Your task to perform on an android device: search for starred emails in the gmail app Image 0: 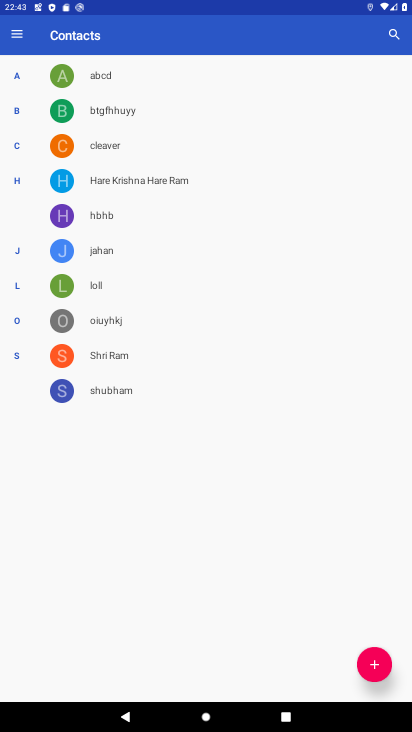
Step 0: press home button
Your task to perform on an android device: search for starred emails in the gmail app Image 1: 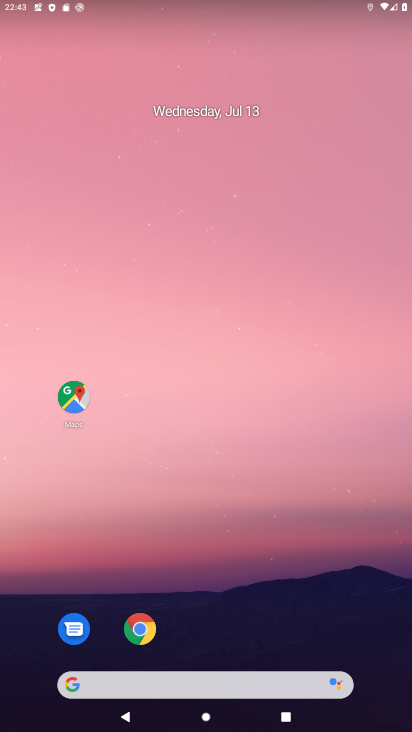
Step 1: drag from (210, 646) to (254, 27)
Your task to perform on an android device: search for starred emails in the gmail app Image 2: 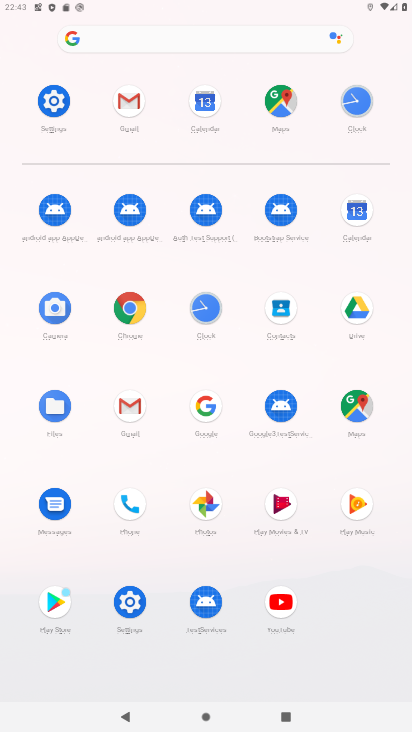
Step 2: click (124, 95)
Your task to perform on an android device: search for starred emails in the gmail app Image 3: 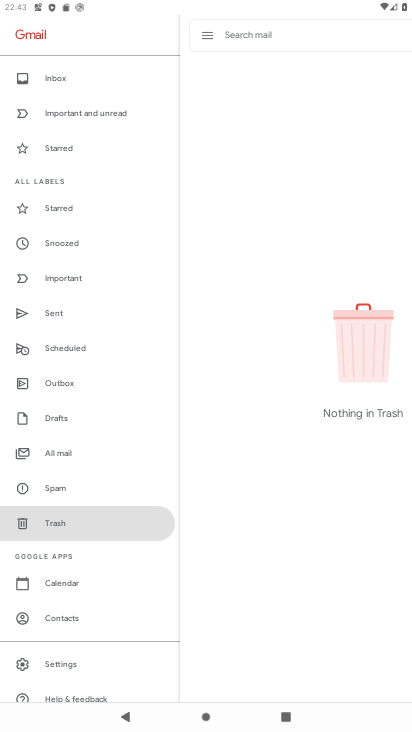
Step 3: click (80, 203)
Your task to perform on an android device: search for starred emails in the gmail app Image 4: 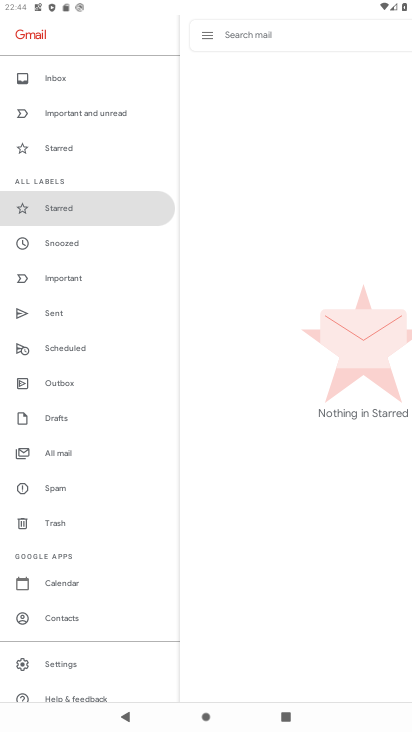
Step 4: task complete